Your task to perform on an android device: toggle javascript in the chrome app Image 0: 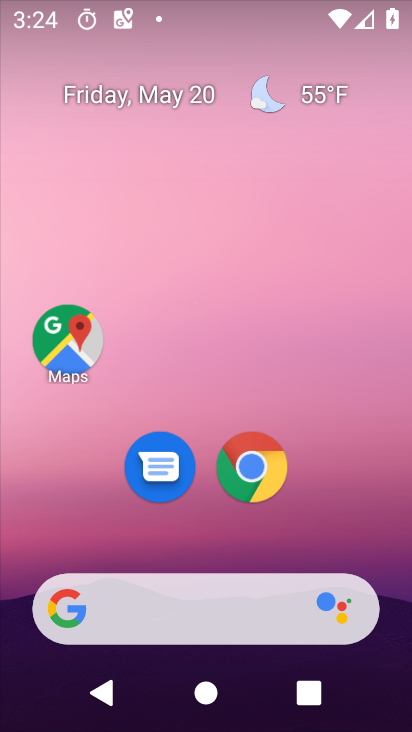
Step 0: click (255, 464)
Your task to perform on an android device: toggle javascript in the chrome app Image 1: 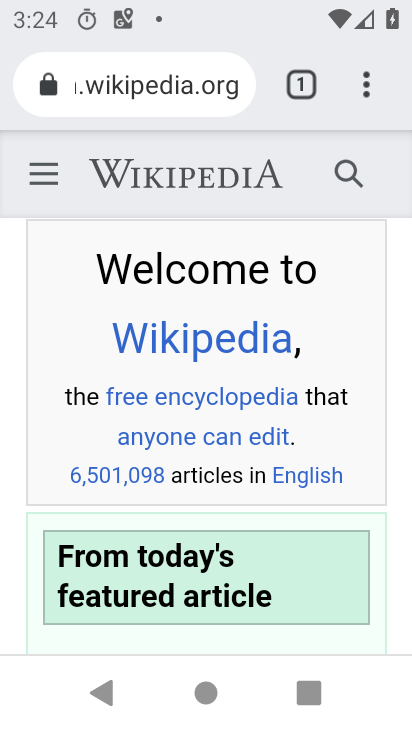
Step 1: click (361, 89)
Your task to perform on an android device: toggle javascript in the chrome app Image 2: 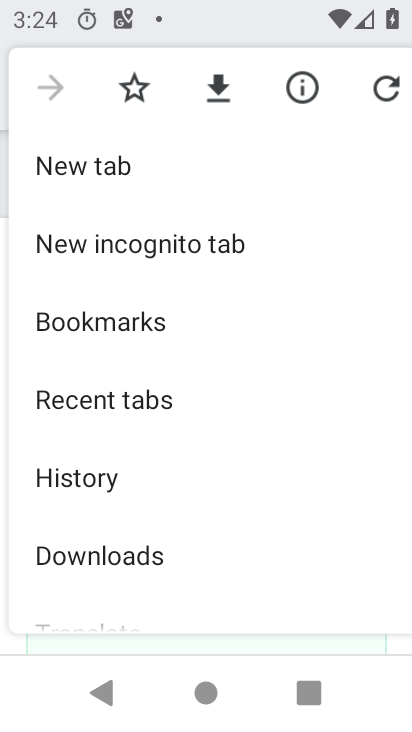
Step 2: drag from (169, 521) to (129, 126)
Your task to perform on an android device: toggle javascript in the chrome app Image 3: 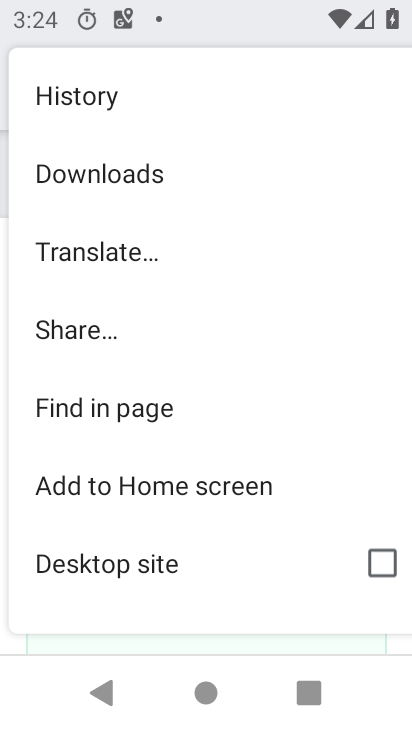
Step 3: drag from (115, 537) to (89, 138)
Your task to perform on an android device: toggle javascript in the chrome app Image 4: 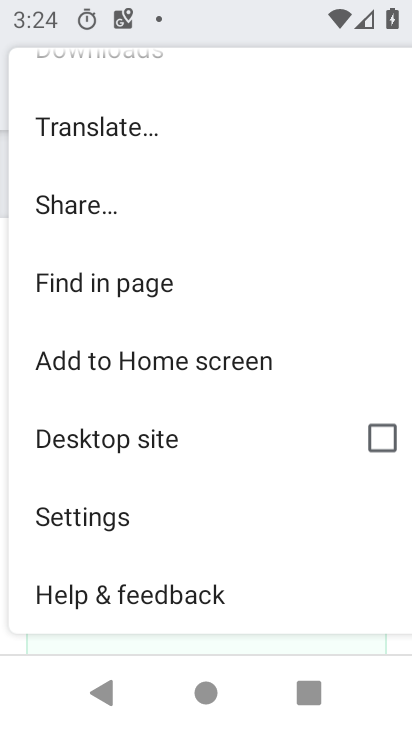
Step 4: click (108, 505)
Your task to perform on an android device: toggle javascript in the chrome app Image 5: 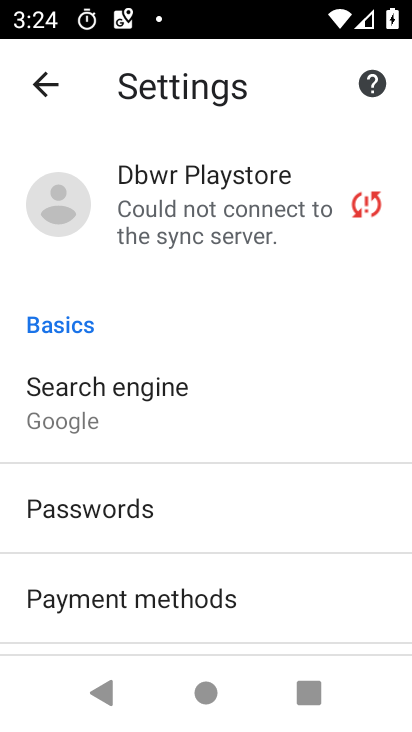
Step 5: drag from (156, 552) to (153, 212)
Your task to perform on an android device: toggle javascript in the chrome app Image 6: 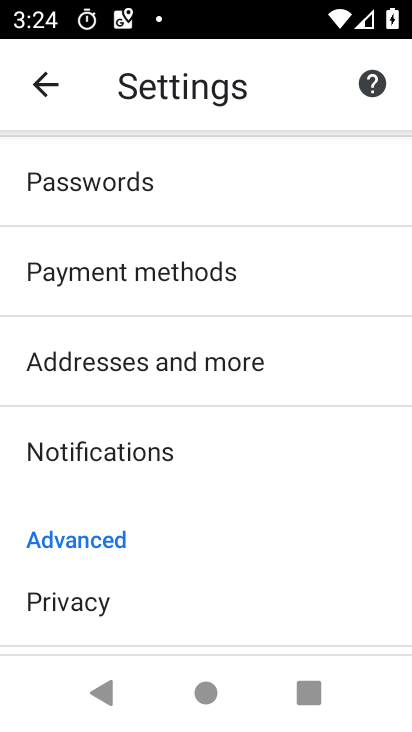
Step 6: drag from (155, 591) to (146, 327)
Your task to perform on an android device: toggle javascript in the chrome app Image 7: 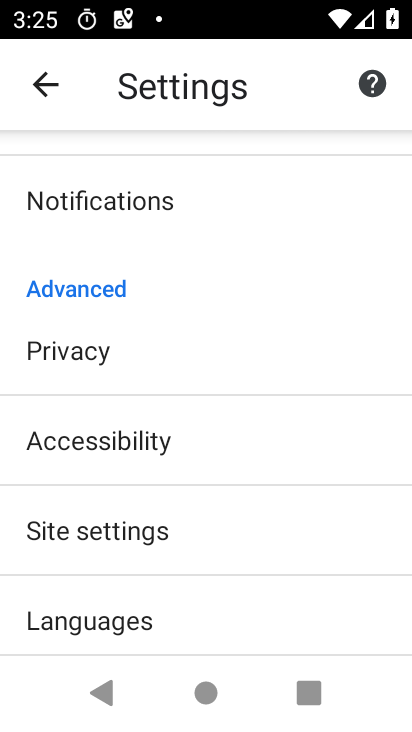
Step 7: click (102, 528)
Your task to perform on an android device: toggle javascript in the chrome app Image 8: 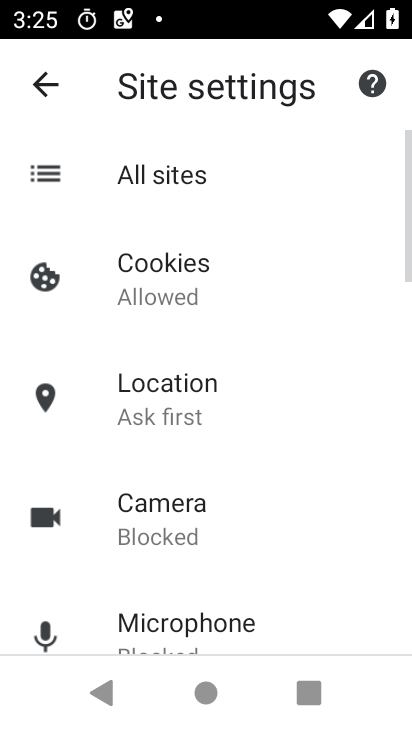
Step 8: drag from (217, 590) to (196, 248)
Your task to perform on an android device: toggle javascript in the chrome app Image 9: 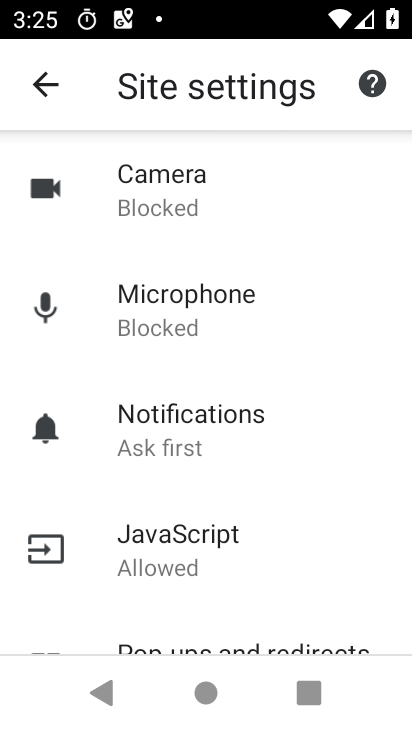
Step 9: click (187, 541)
Your task to perform on an android device: toggle javascript in the chrome app Image 10: 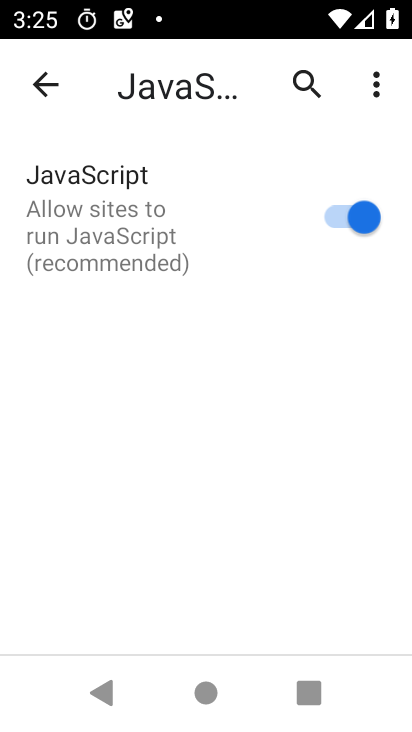
Step 10: click (341, 216)
Your task to perform on an android device: toggle javascript in the chrome app Image 11: 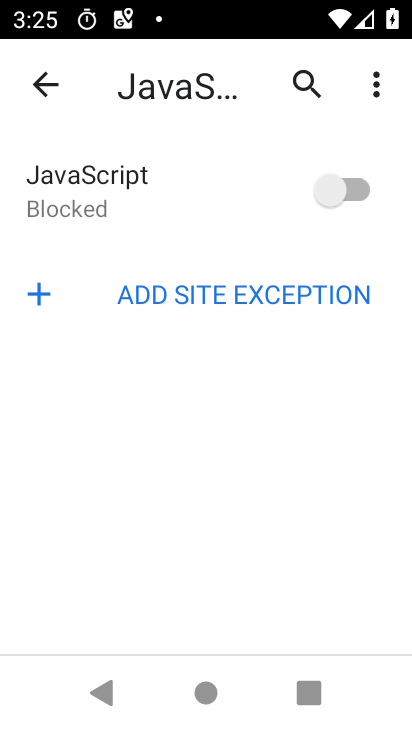
Step 11: task complete